Your task to perform on an android device: add a contact Image 0: 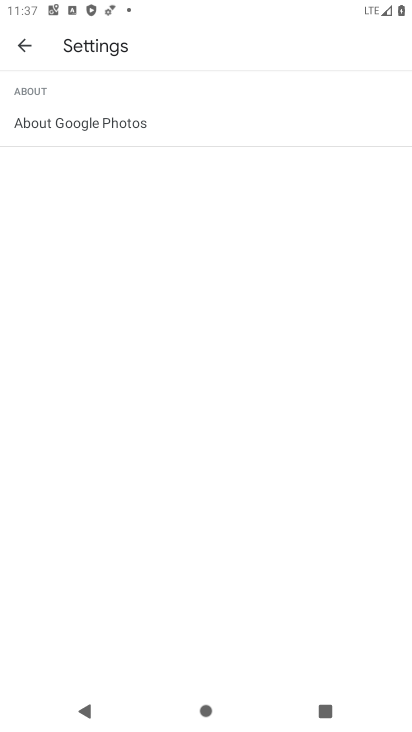
Step 0: press home button
Your task to perform on an android device: add a contact Image 1: 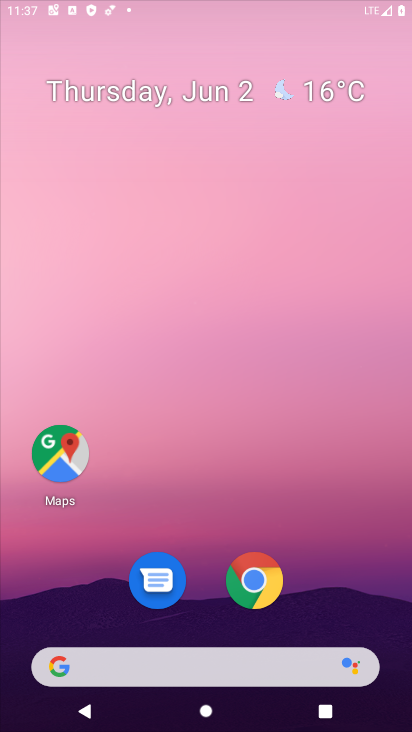
Step 1: drag from (230, 661) to (231, 300)
Your task to perform on an android device: add a contact Image 2: 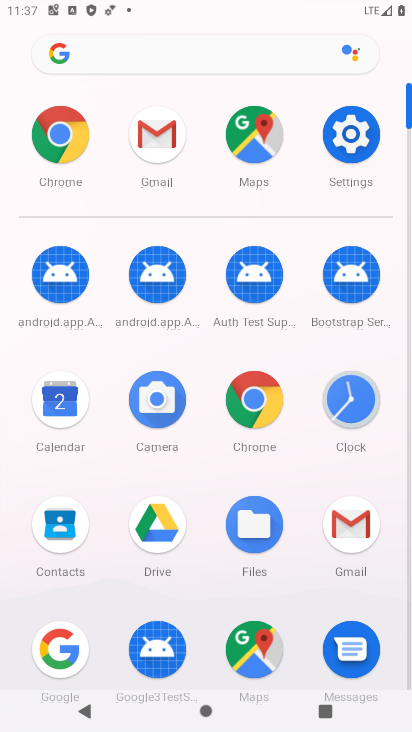
Step 2: click (80, 539)
Your task to perform on an android device: add a contact Image 3: 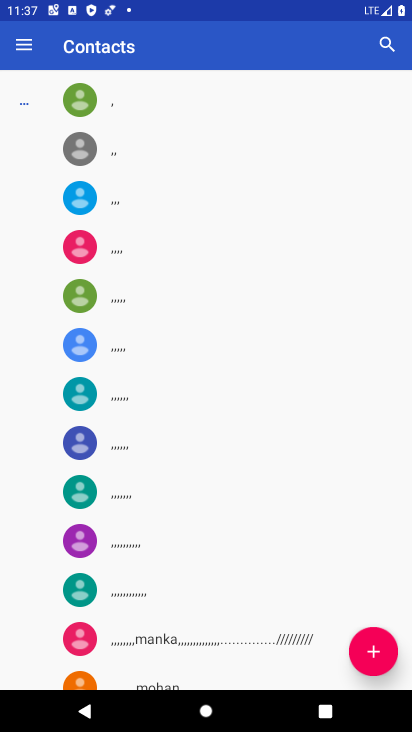
Step 3: click (373, 670)
Your task to perform on an android device: add a contact Image 4: 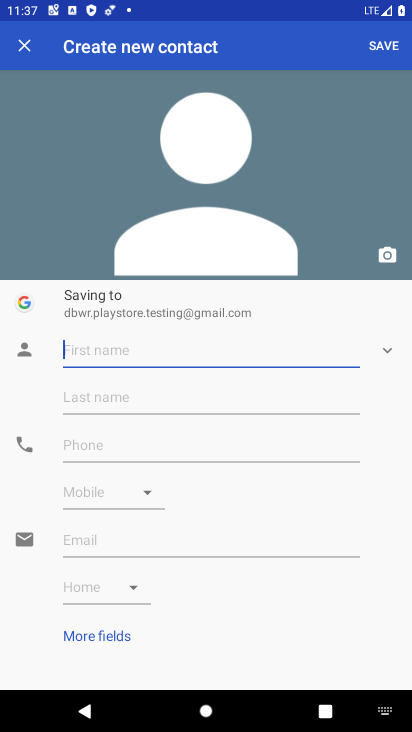
Step 4: type "nfhf"
Your task to perform on an android device: add a contact Image 5: 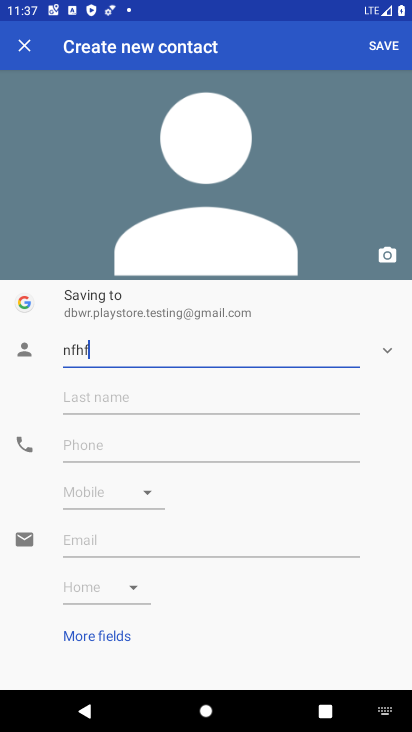
Step 5: click (194, 445)
Your task to perform on an android device: add a contact Image 6: 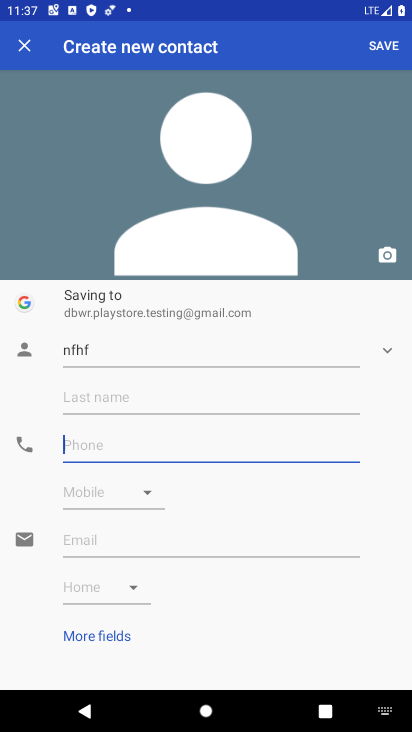
Step 6: type "7865745"
Your task to perform on an android device: add a contact Image 7: 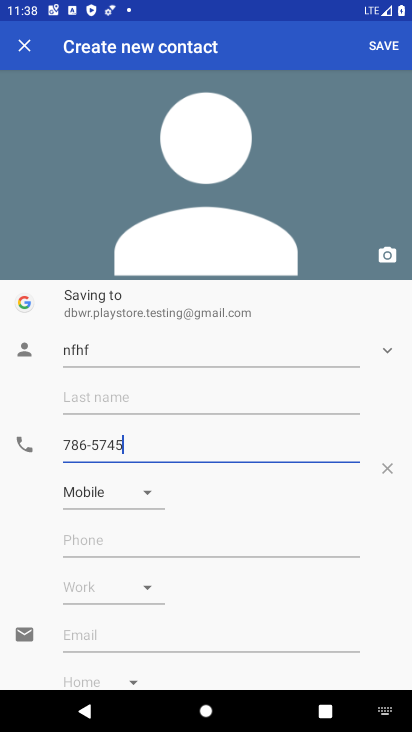
Step 7: click (385, 46)
Your task to perform on an android device: add a contact Image 8: 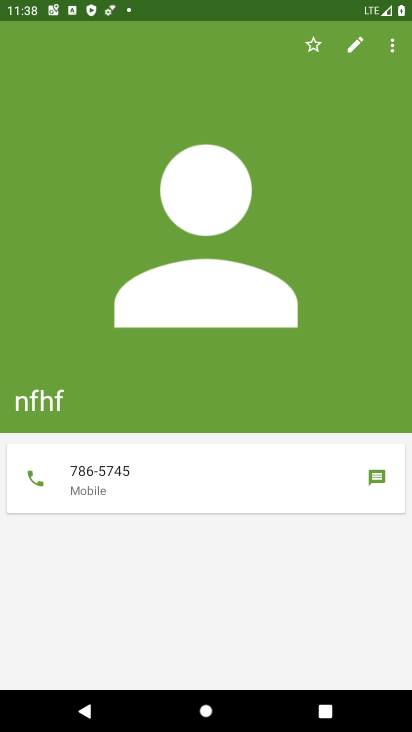
Step 8: task complete